Your task to perform on an android device: Open Google Chrome and click the shortcut for Amazon.com Image 0: 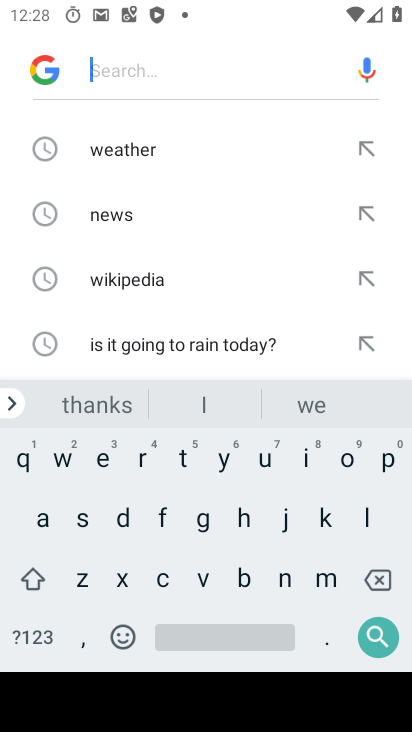
Step 0: press home button
Your task to perform on an android device: Open Google Chrome and click the shortcut for Amazon.com Image 1: 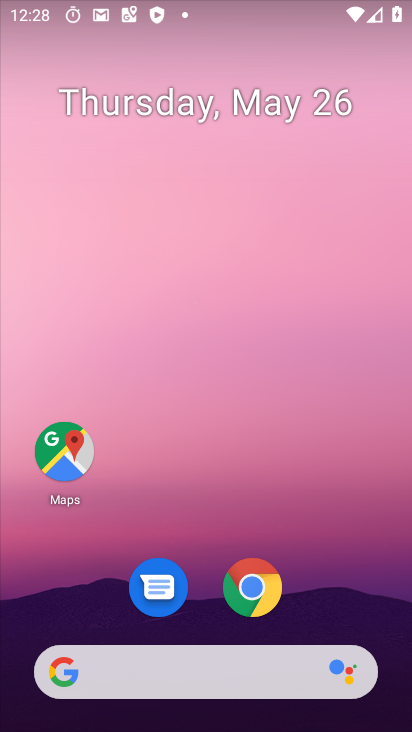
Step 1: drag from (253, 693) to (188, 27)
Your task to perform on an android device: Open Google Chrome and click the shortcut for Amazon.com Image 2: 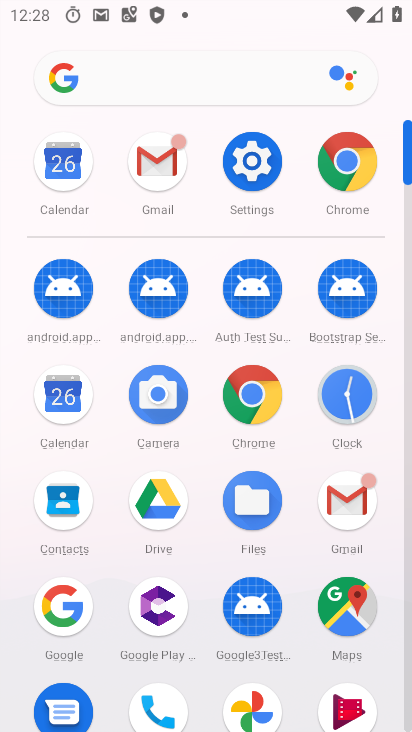
Step 2: click (264, 387)
Your task to perform on an android device: Open Google Chrome and click the shortcut for Amazon.com Image 3: 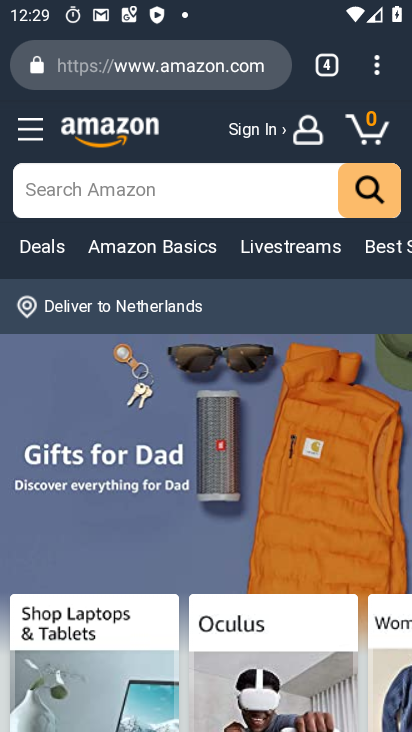
Step 3: click (374, 80)
Your task to perform on an android device: Open Google Chrome and click the shortcut for Amazon.com Image 4: 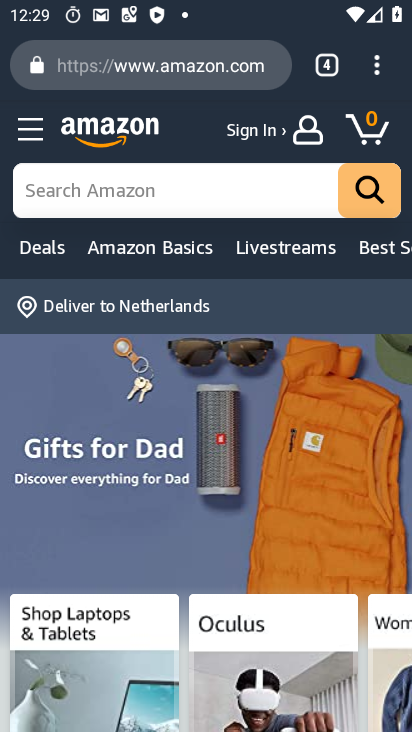
Step 4: click (377, 77)
Your task to perform on an android device: Open Google Chrome and click the shortcut for Amazon.com Image 5: 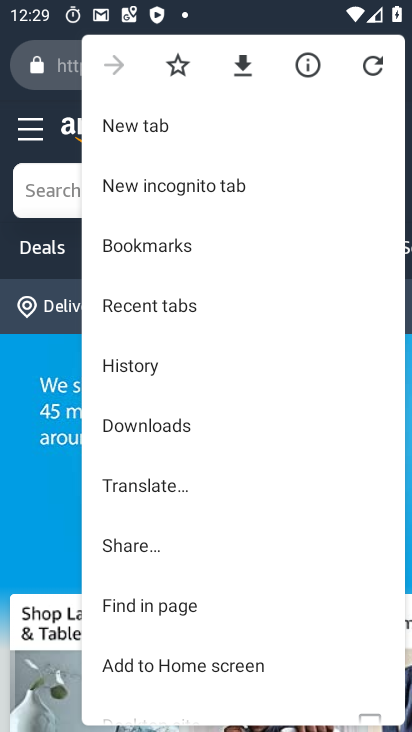
Step 5: click (164, 660)
Your task to perform on an android device: Open Google Chrome and click the shortcut for Amazon.com Image 6: 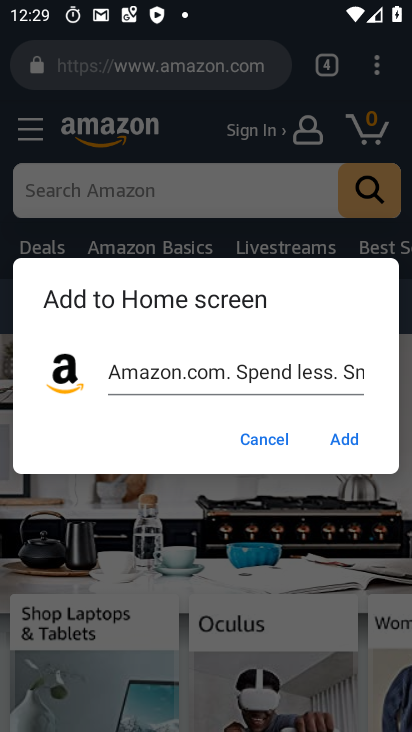
Step 6: click (345, 453)
Your task to perform on an android device: Open Google Chrome and click the shortcut for Amazon.com Image 7: 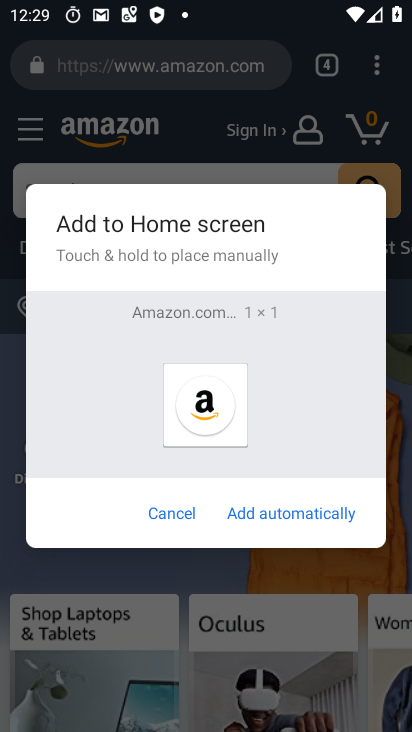
Step 7: click (281, 521)
Your task to perform on an android device: Open Google Chrome and click the shortcut for Amazon.com Image 8: 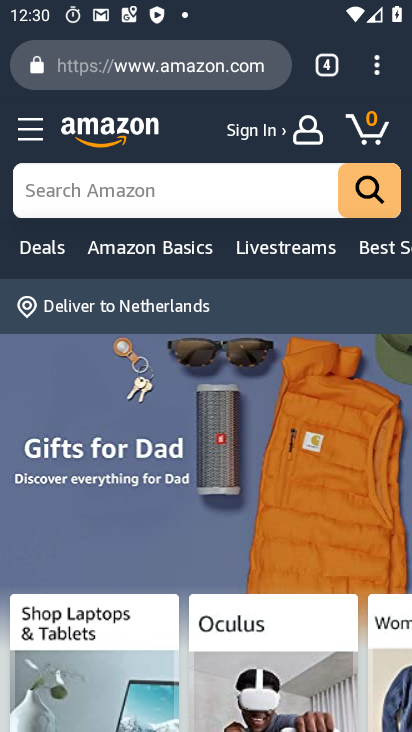
Step 8: task complete